Your task to perform on an android device: turn off data saver in the chrome app Image 0: 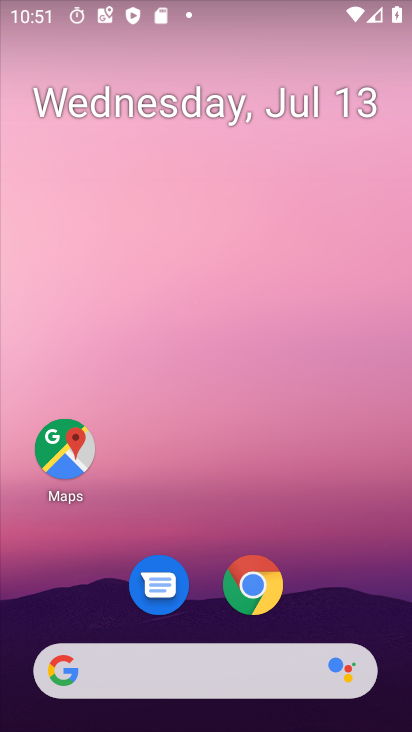
Step 0: click (250, 581)
Your task to perform on an android device: turn off data saver in the chrome app Image 1: 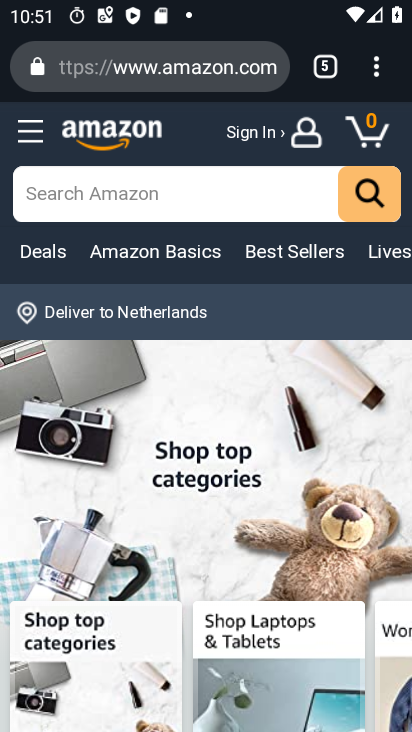
Step 1: click (381, 69)
Your task to perform on an android device: turn off data saver in the chrome app Image 2: 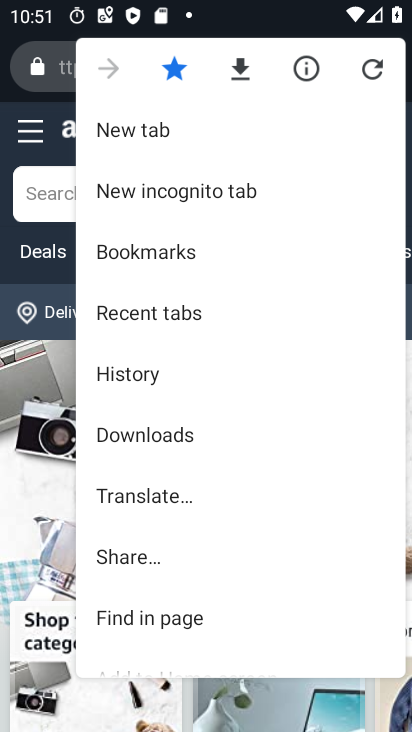
Step 2: drag from (247, 588) to (254, 167)
Your task to perform on an android device: turn off data saver in the chrome app Image 3: 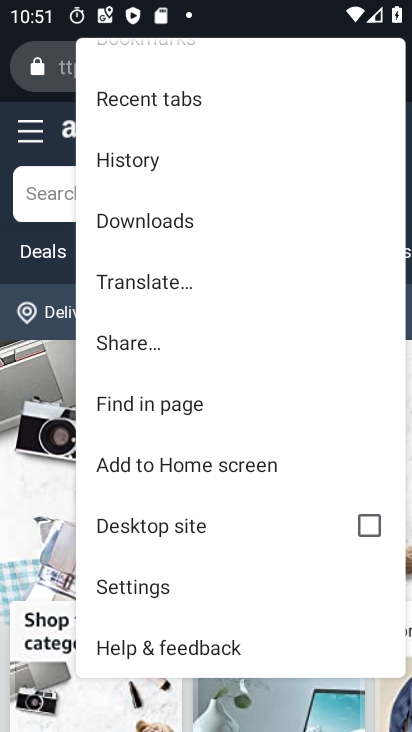
Step 3: click (161, 585)
Your task to perform on an android device: turn off data saver in the chrome app Image 4: 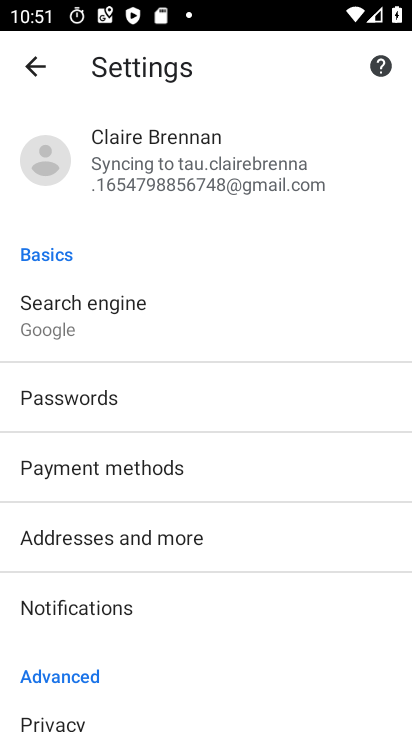
Step 4: drag from (242, 504) to (260, 12)
Your task to perform on an android device: turn off data saver in the chrome app Image 5: 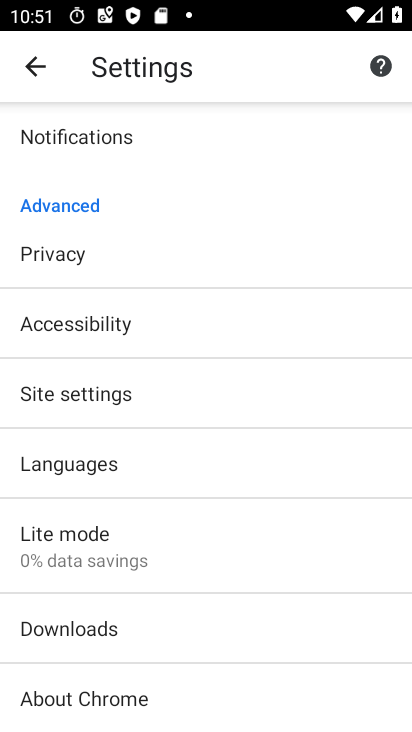
Step 5: click (86, 549)
Your task to perform on an android device: turn off data saver in the chrome app Image 6: 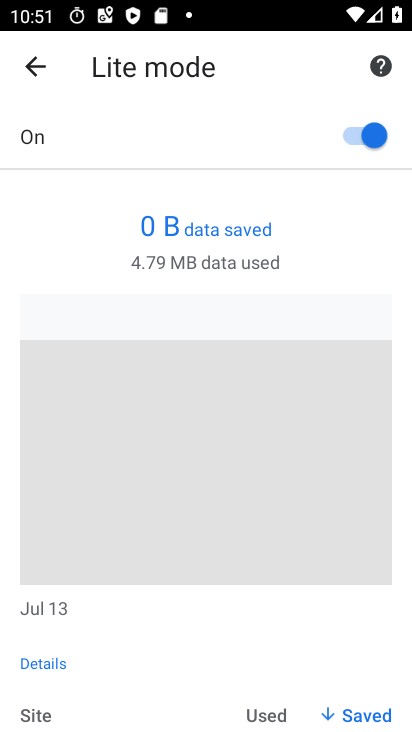
Step 6: click (358, 134)
Your task to perform on an android device: turn off data saver in the chrome app Image 7: 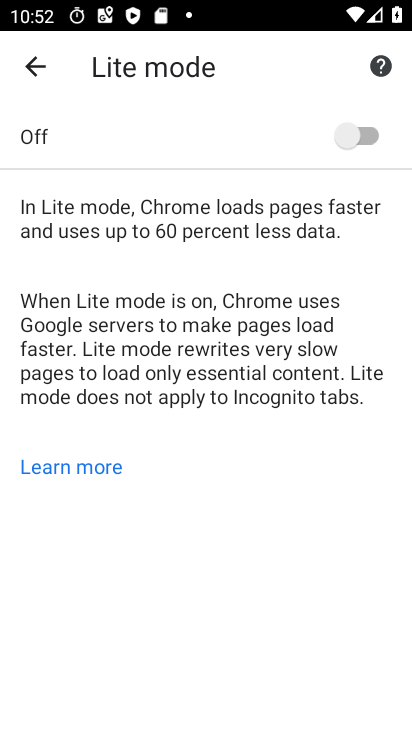
Step 7: task complete